Your task to perform on an android device: turn on the 12-hour format for clock Image 0: 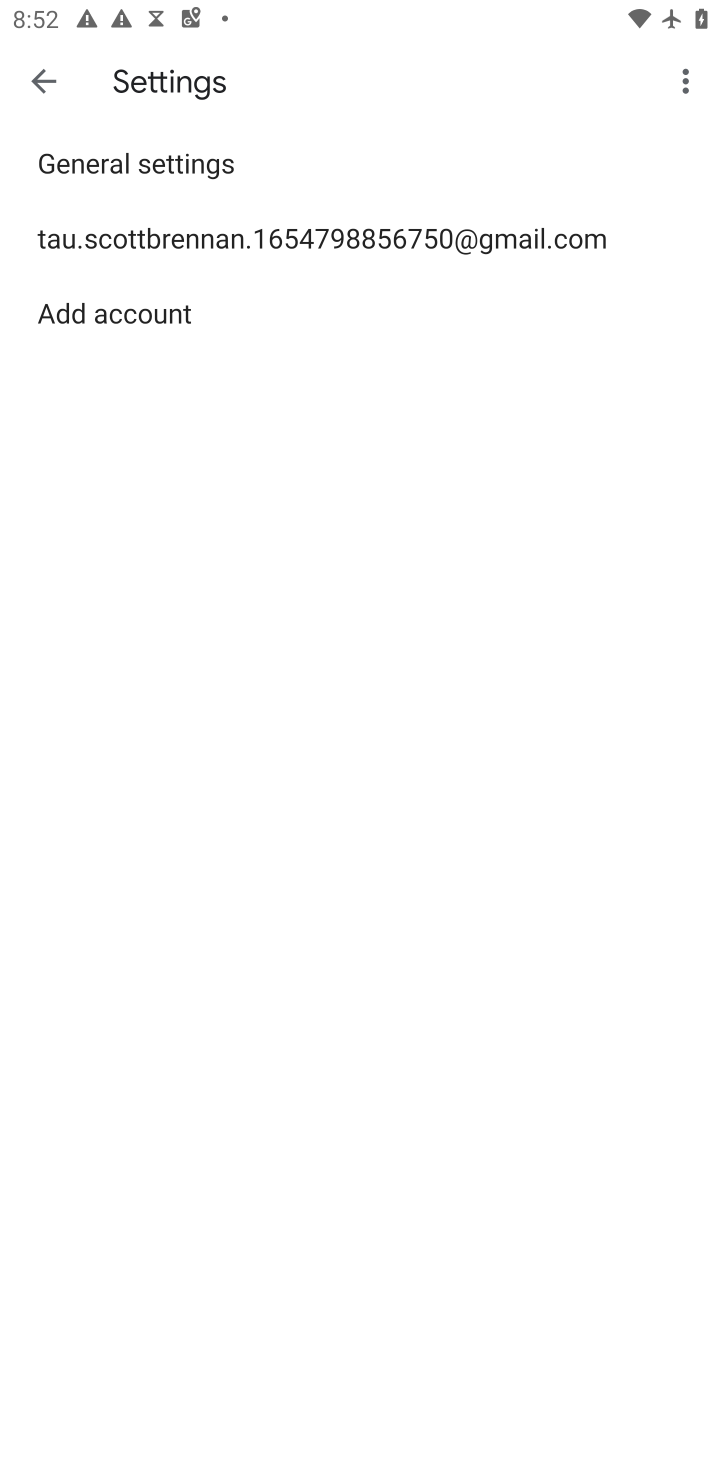
Step 0: press home button
Your task to perform on an android device: turn on the 12-hour format for clock Image 1: 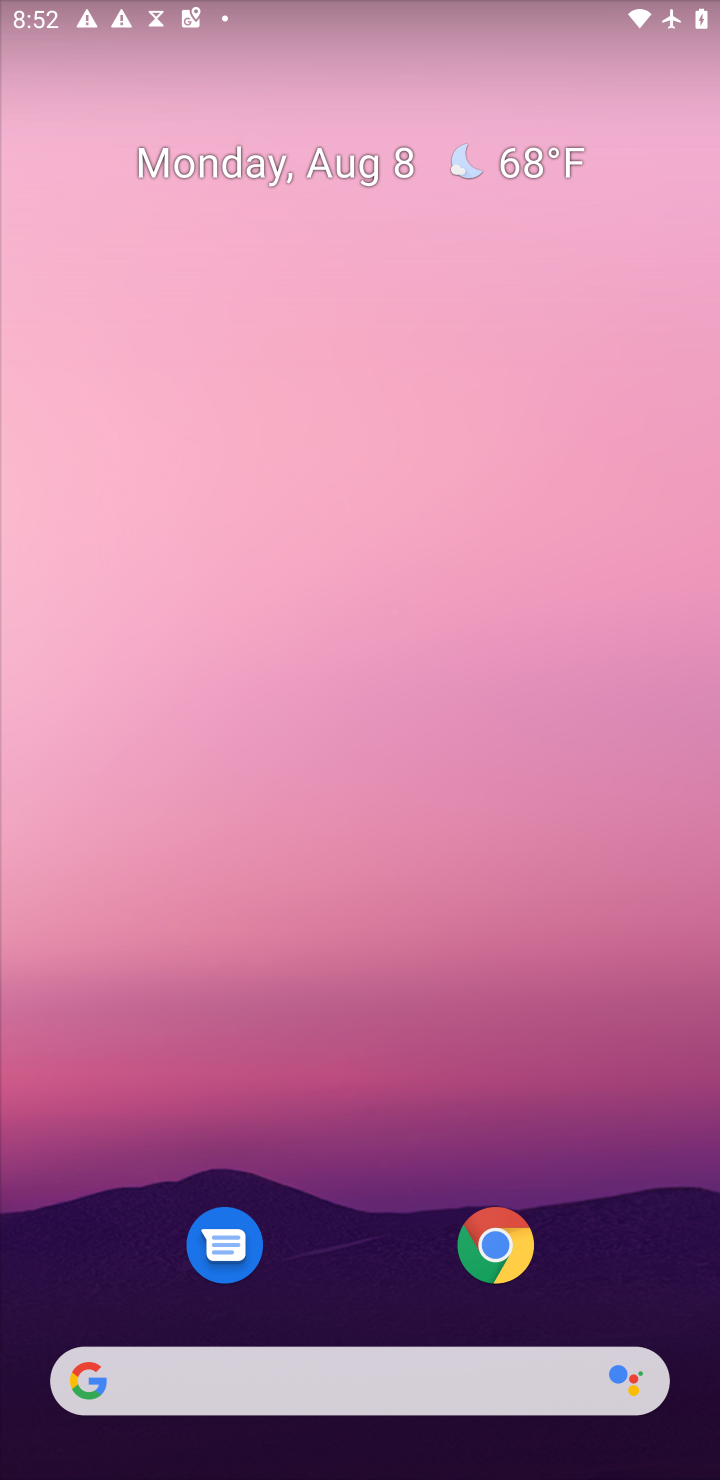
Step 1: drag from (275, 1300) to (323, 112)
Your task to perform on an android device: turn on the 12-hour format for clock Image 2: 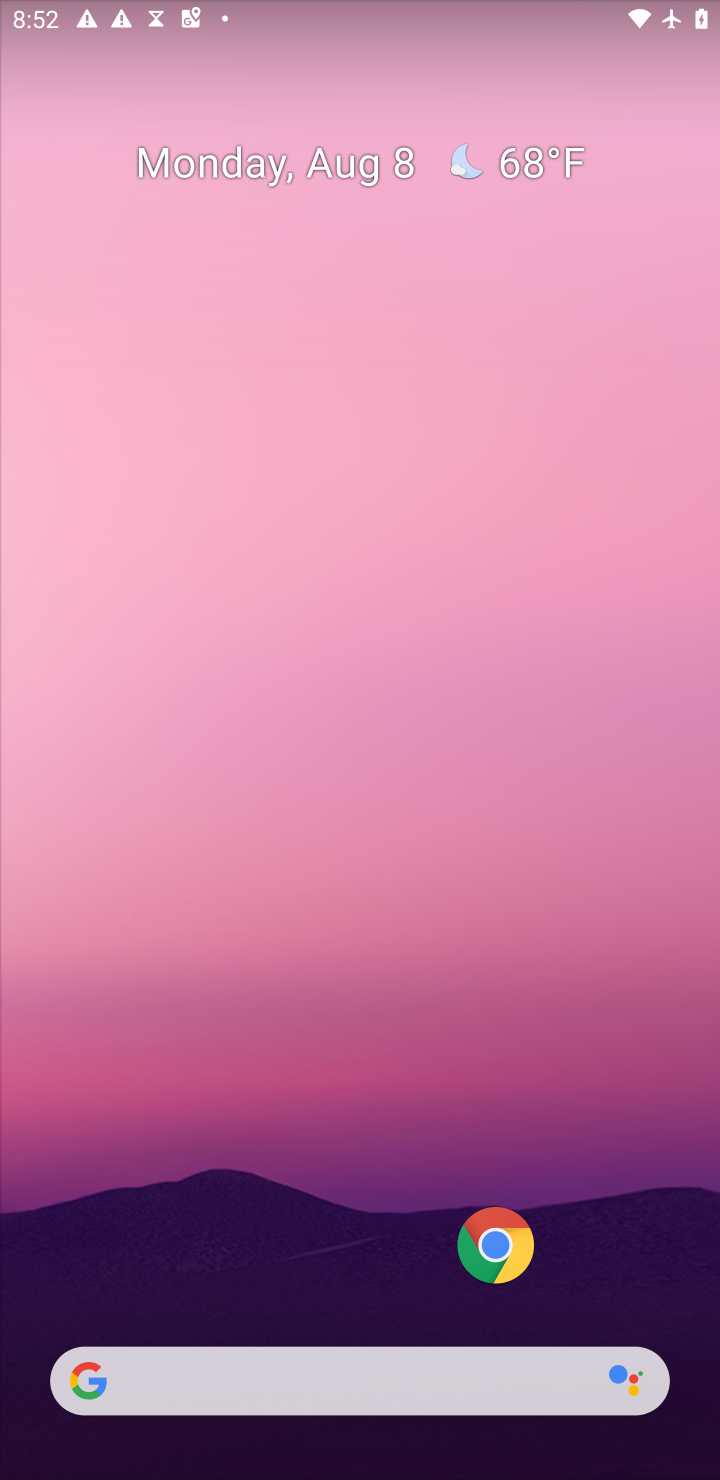
Step 2: drag from (303, 574) to (252, 0)
Your task to perform on an android device: turn on the 12-hour format for clock Image 3: 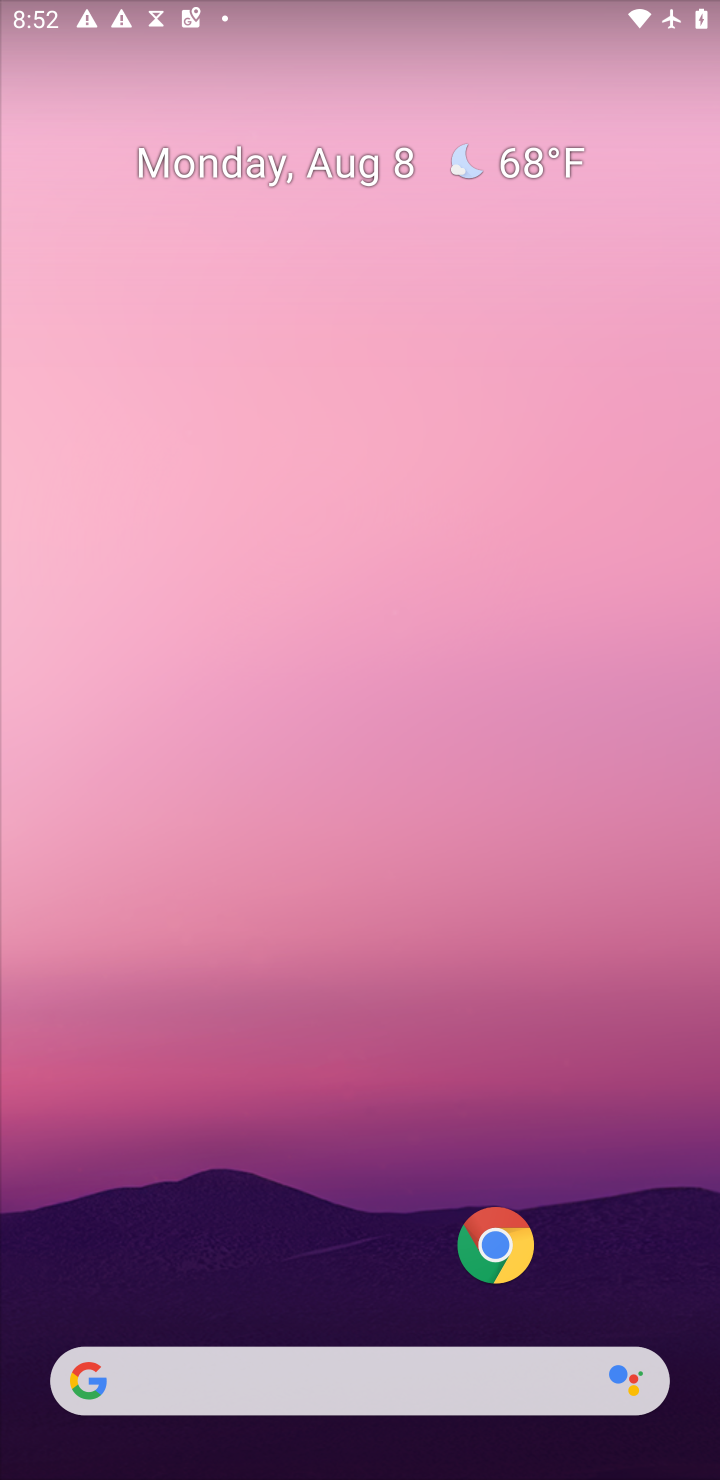
Step 3: drag from (339, 1192) to (403, 0)
Your task to perform on an android device: turn on the 12-hour format for clock Image 4: 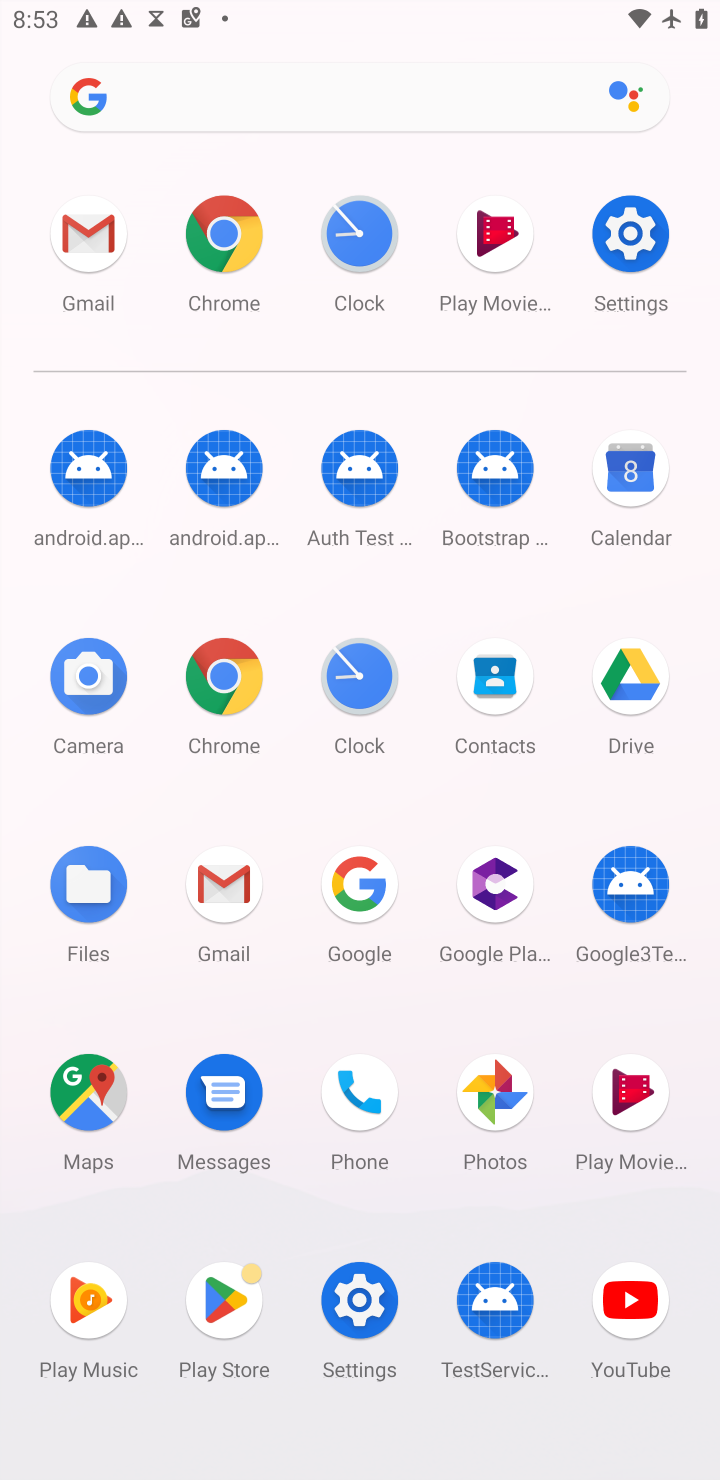
Step 4: click (652, 267)
Your task to perform on an android device: turn on the 12-hour format for clock Image 5: 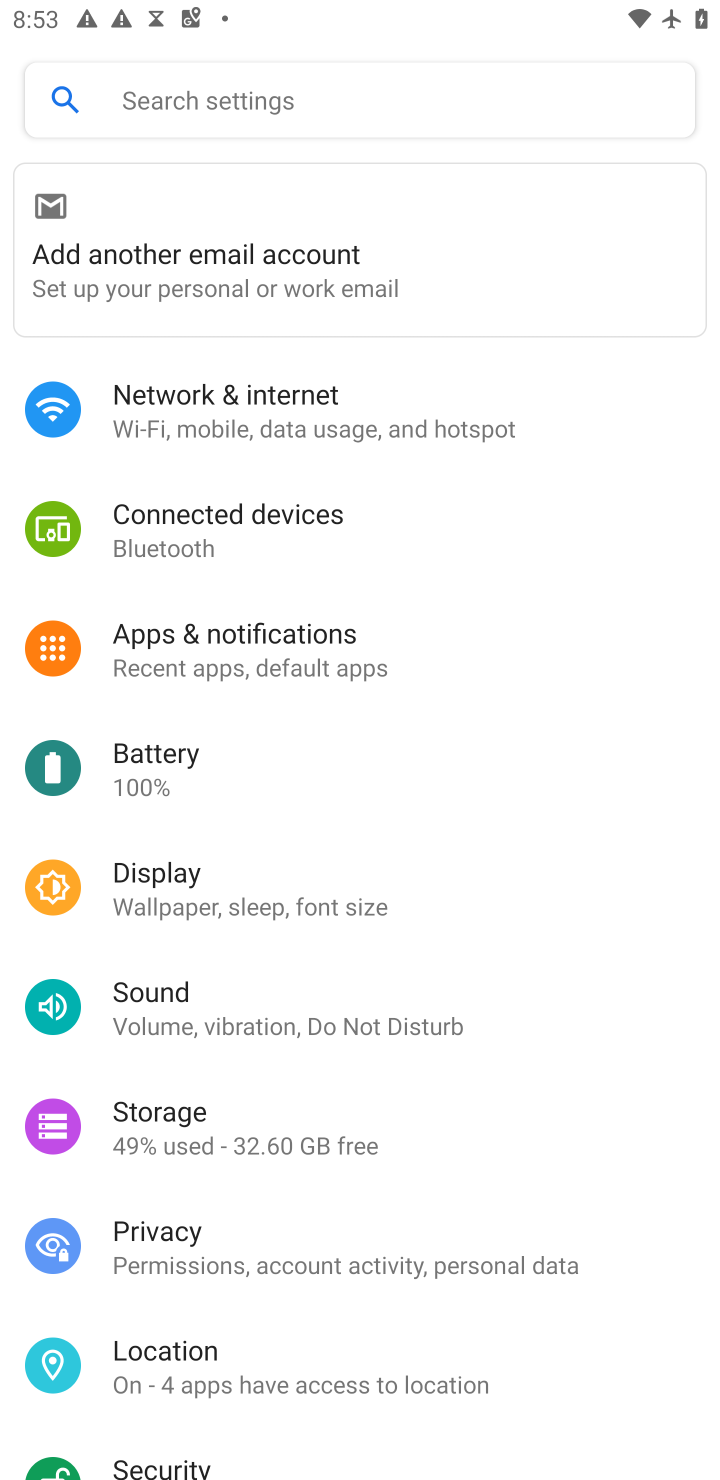
Step 5: drag from (286, 1259) to (479, 144)
Your task to perform on an android device: turn on the 12-hour format for clock Image 6: 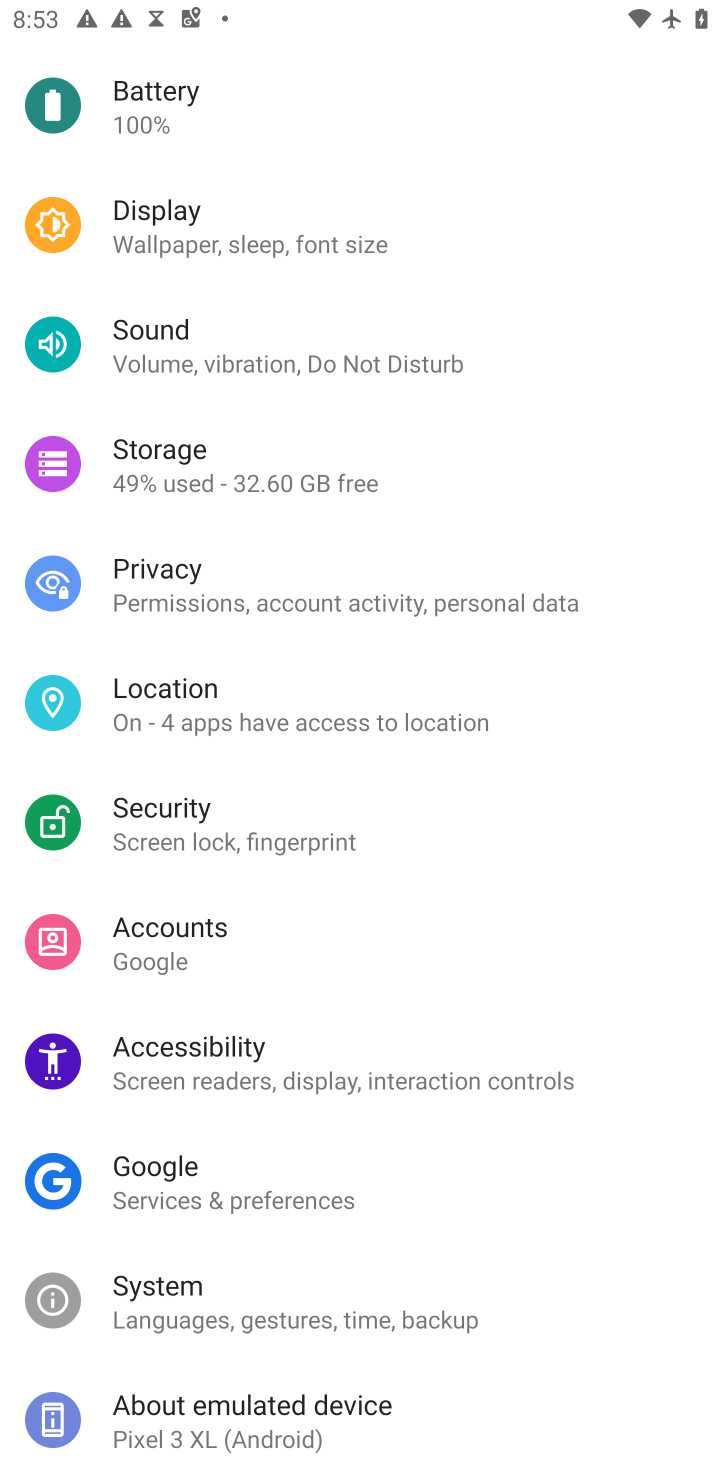
Step 6: click (217, 1317)
Your task to perform on an android device: turn on the 12-hour format for clock Image 7: 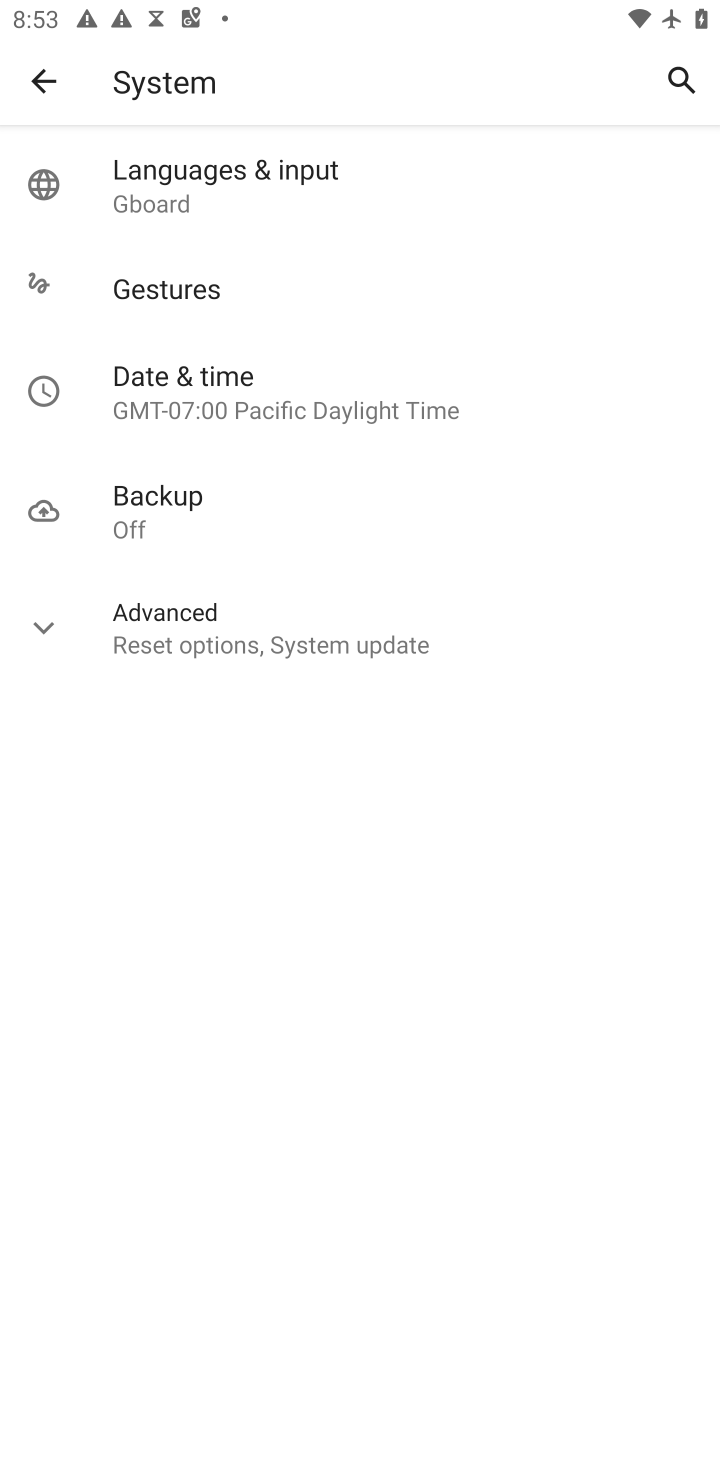
Step 7: click (271, 385)
Your task to perform on an android device: turn on the 12-hour format for clock Image 8: 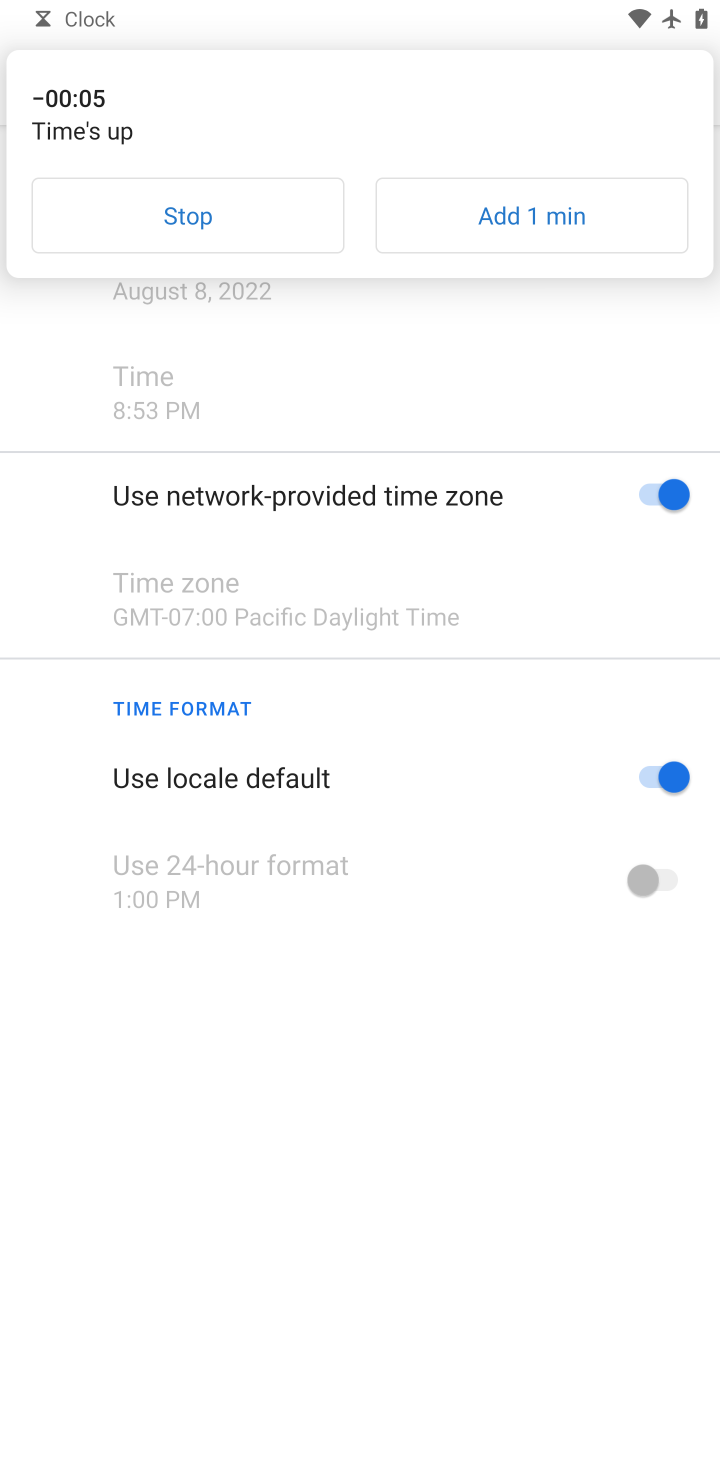
Step 8: click (289, 212)
Your task to perform on an android device: turn on the 12-hour format for clock Image 9: 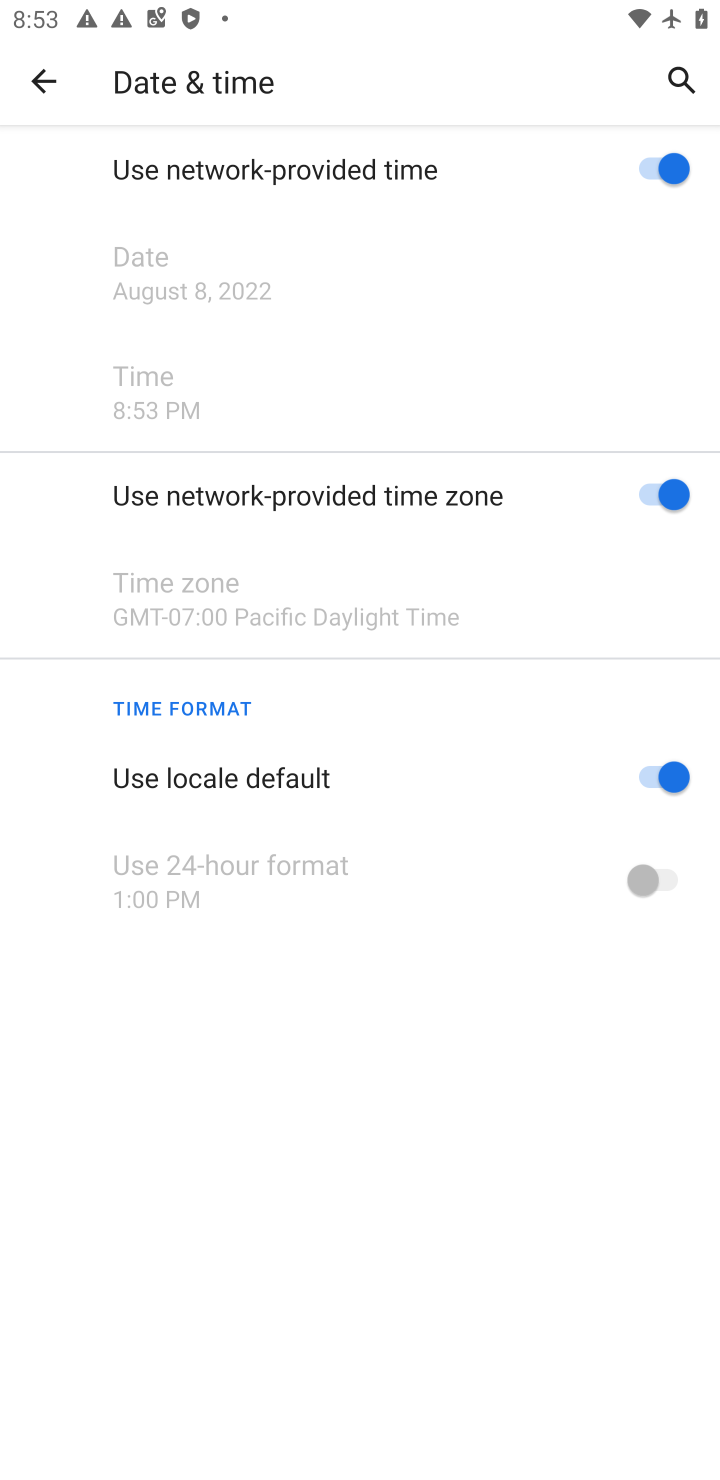
Step 9: task complete